Your task to perform on an android device: Go to Maps Image 0: 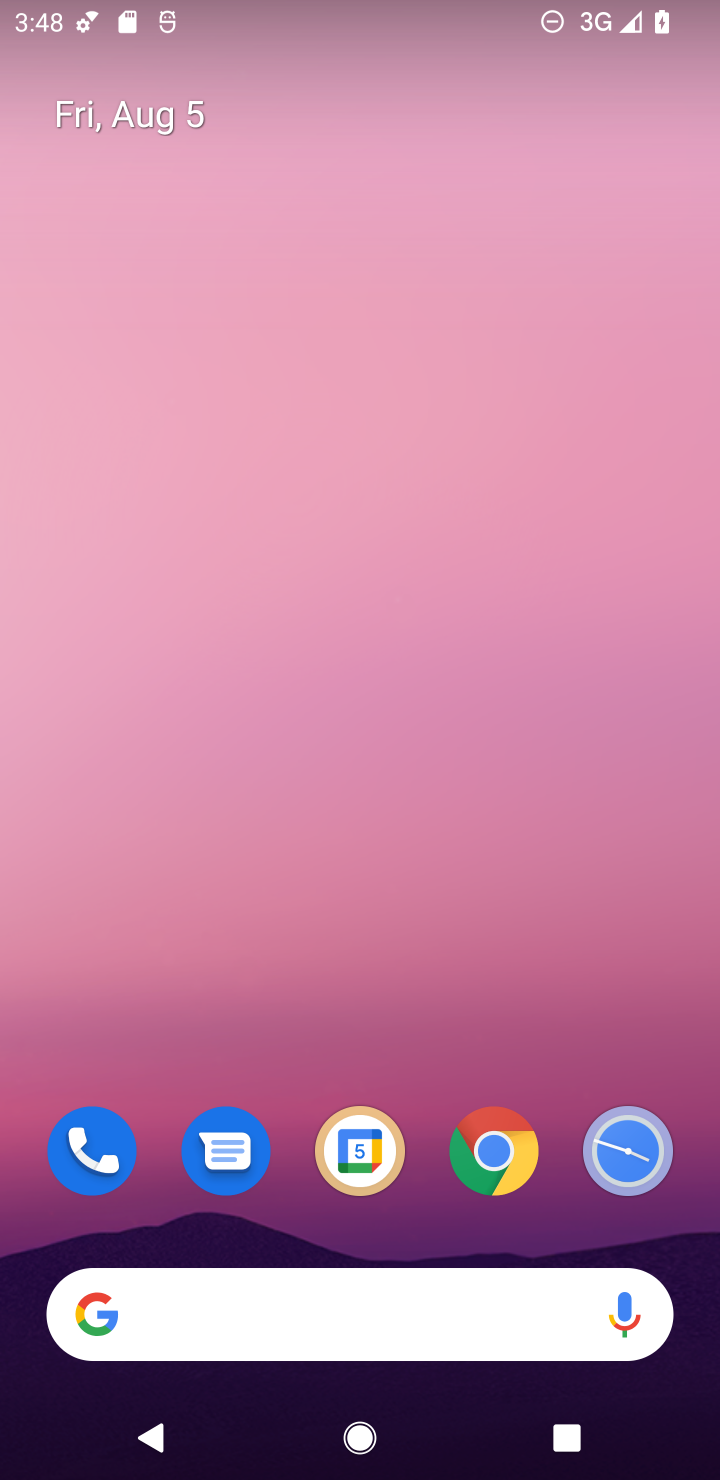
Step 0: drag from (461, 1064) to (335, 10)
Your task to perform on an android device: Go to Maps Image 1: 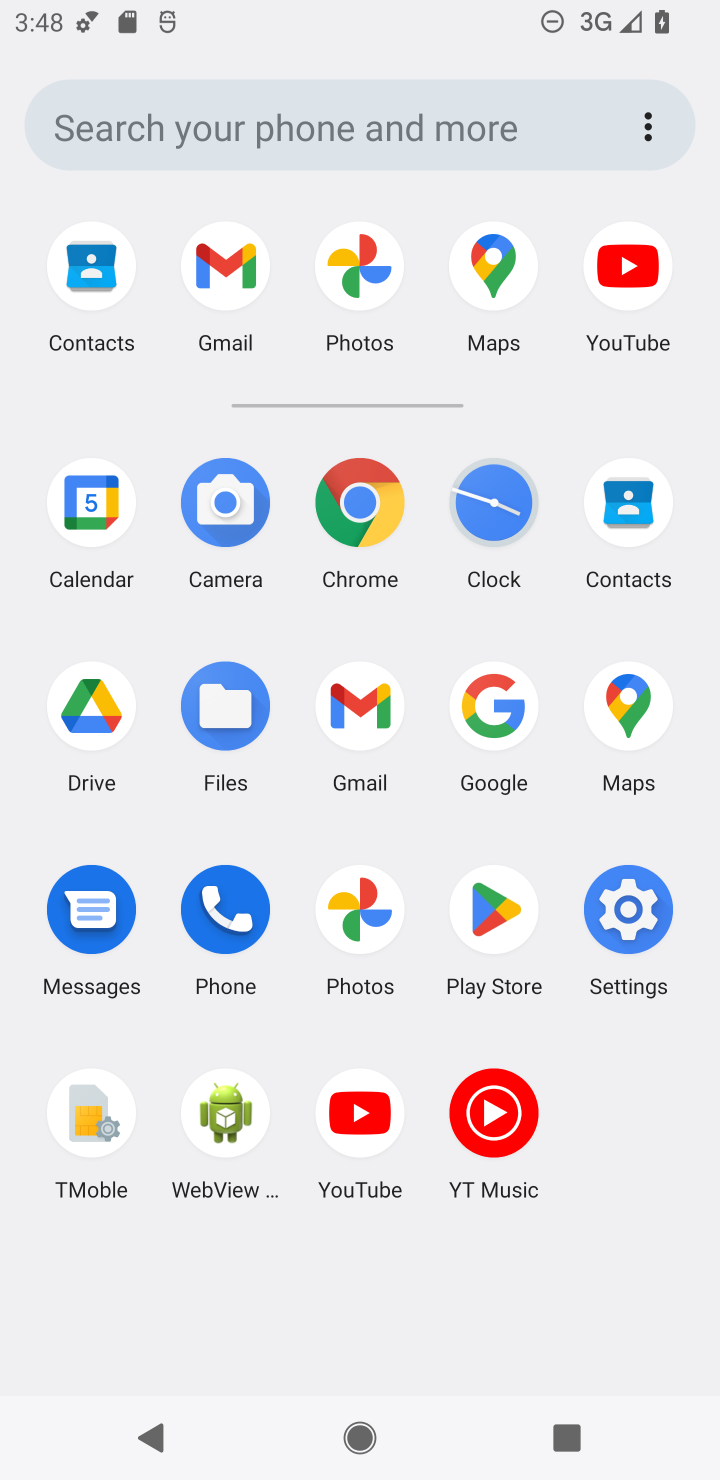
Step 1: click (614, 696)
Your task to perform on an android device: Go to Maps Image 2: 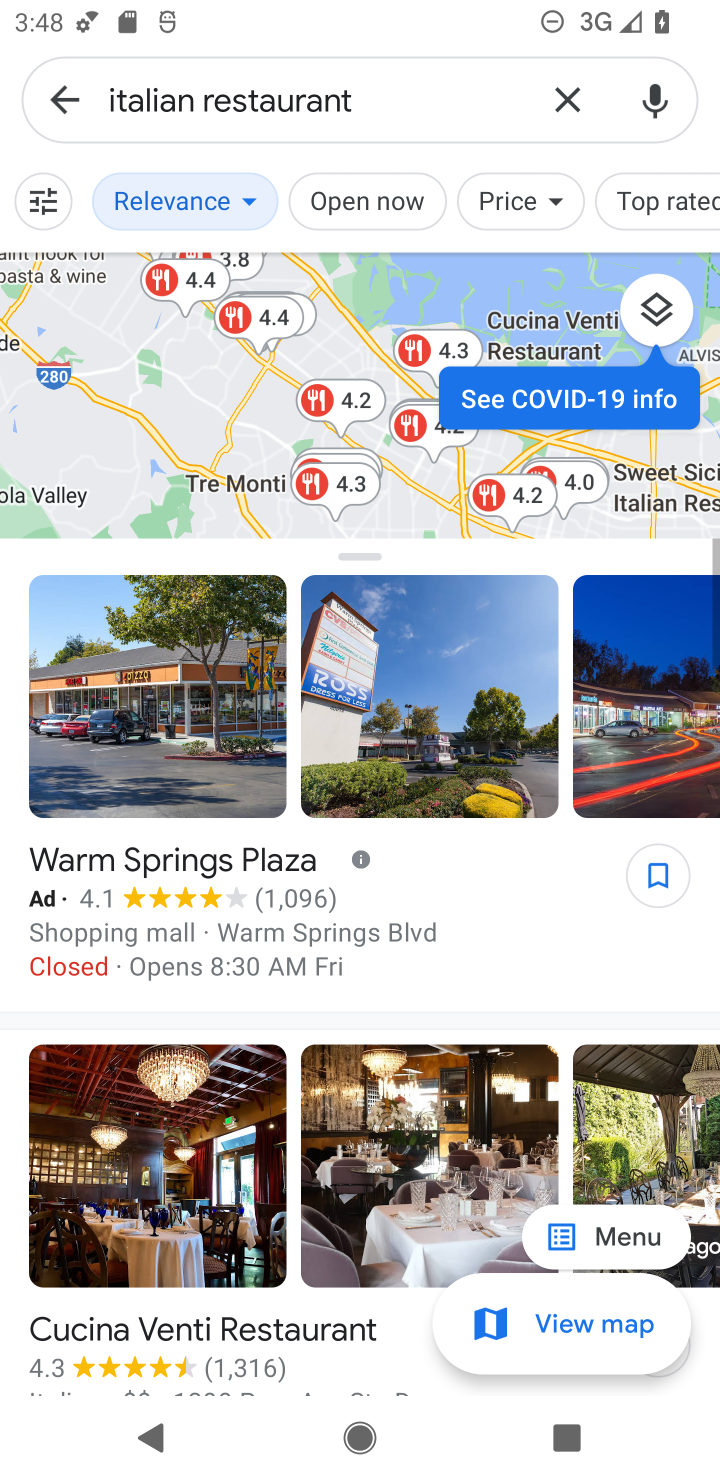
Step 2: task complete